Your task to perform on an android device: Search for seafood restaurants on Google Maps Image 0: 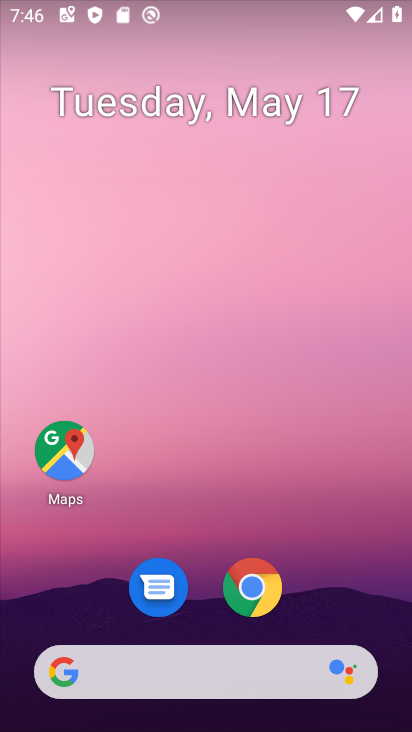
Step 0: click (78, 447)
Your task to perform on an android device: Search for seafood restaurants on Google Maps Image 1: 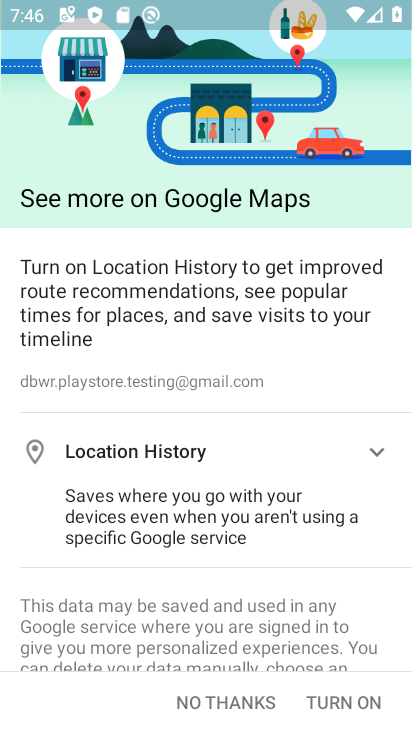
Step 1: click (252, 708)
Your task to perform on an android device: Search for seafood restaurants on Google Maps Image 2: 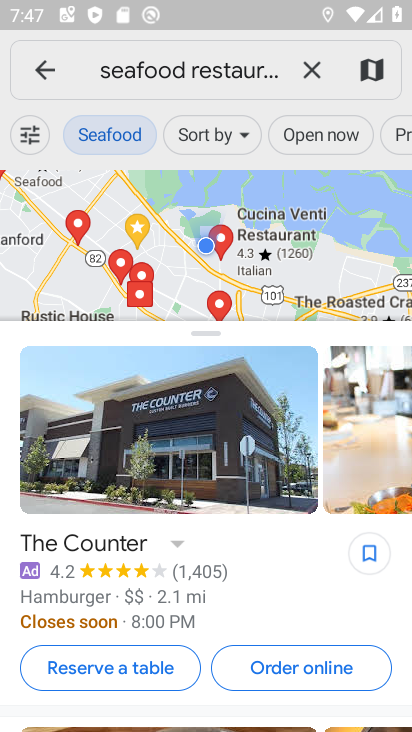
Step 2: task complete